Your task to perform on an android device: delete the emails in spam in the gmail app Image 0: 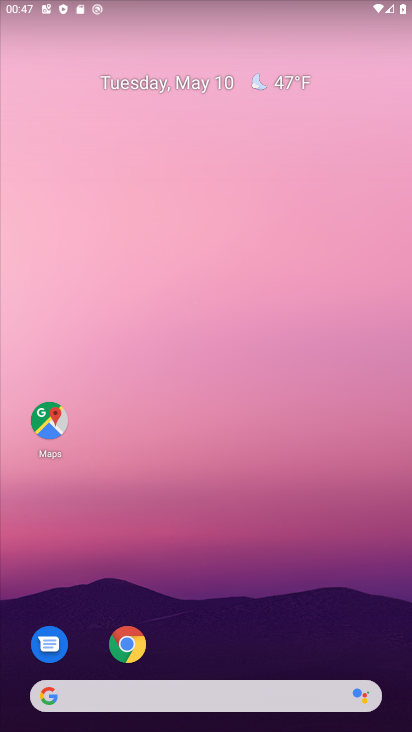
Step 0: drag from (216, 656) to (340, 47)
Your task to perform on an android device: delete the emails in spam in the gmail app Image 1: 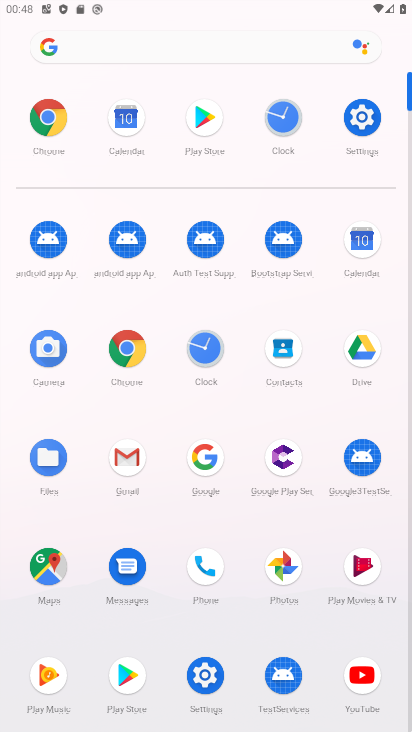
Step 1: click (126, 461)
Your task to perform on an android device: delete the emails in spam in the gmail app Image 2: 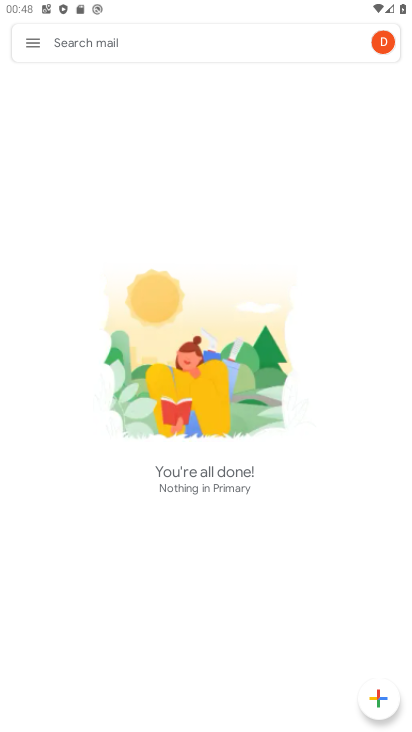
Step 2: click (30, 52)
Your task to perform on an android device: delete the emails in spam in the gmail app Image 3: 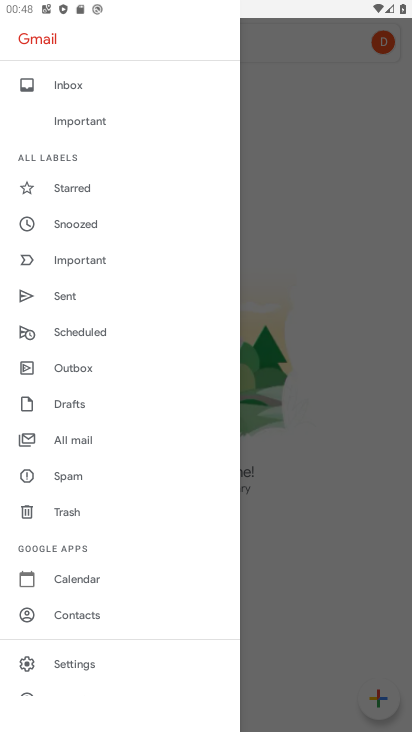
Step 3: click (73, 470)
Your task to perform on an android device: delete the emails in spam in the gmail app Image 4: 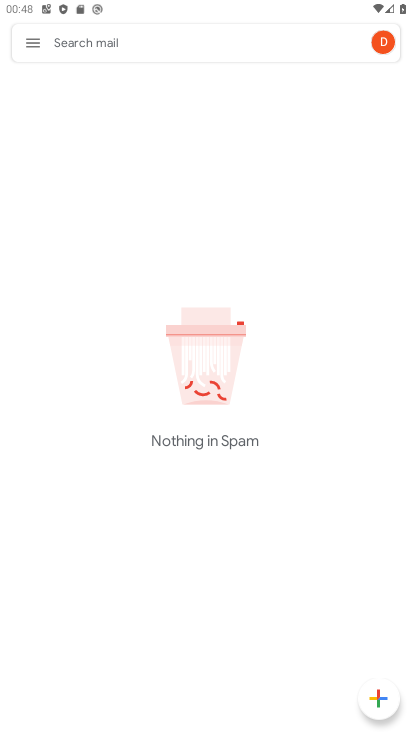
Step 4: task complete